Your task to perform on an android device: star an email in the gmail app Image 0: 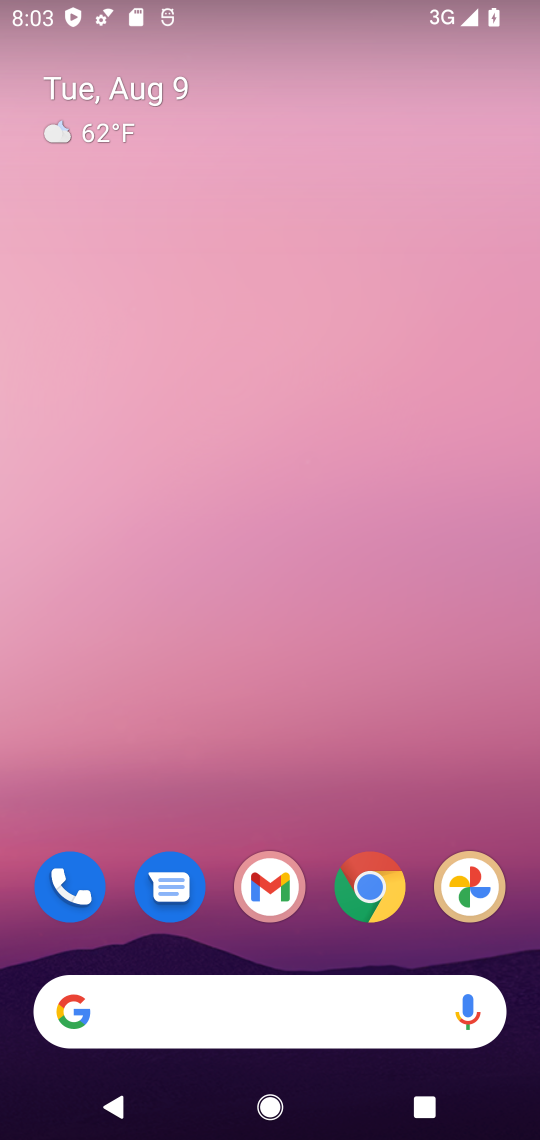
Step 0: click (274, 877)
Your task to perform on an android device: star an email in the gmail app Image 1: 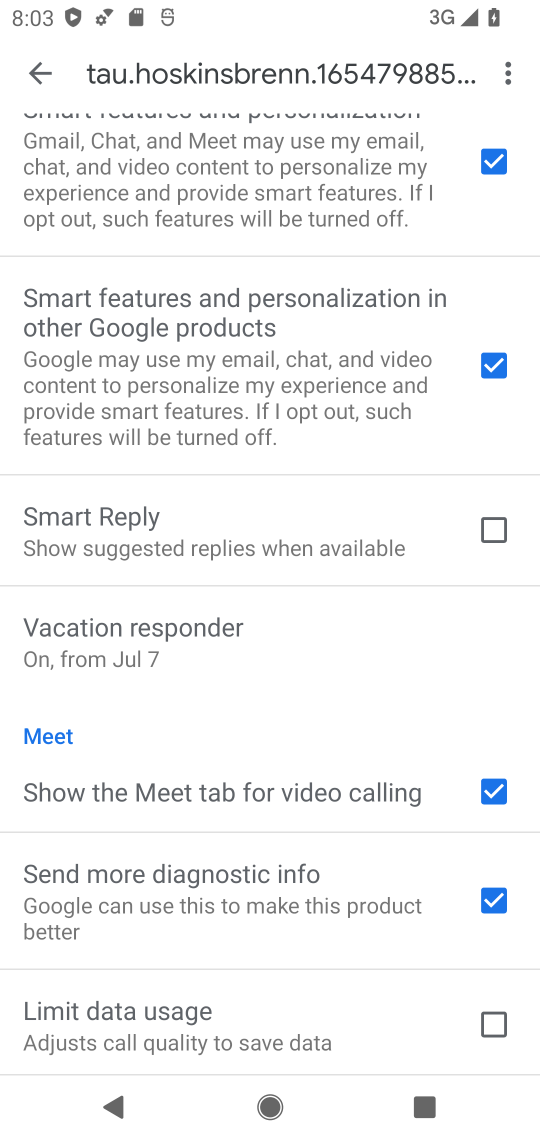
Step 1: click (43, 72)
Your task to perform on an android device: star an email in the gmail app Image 2: 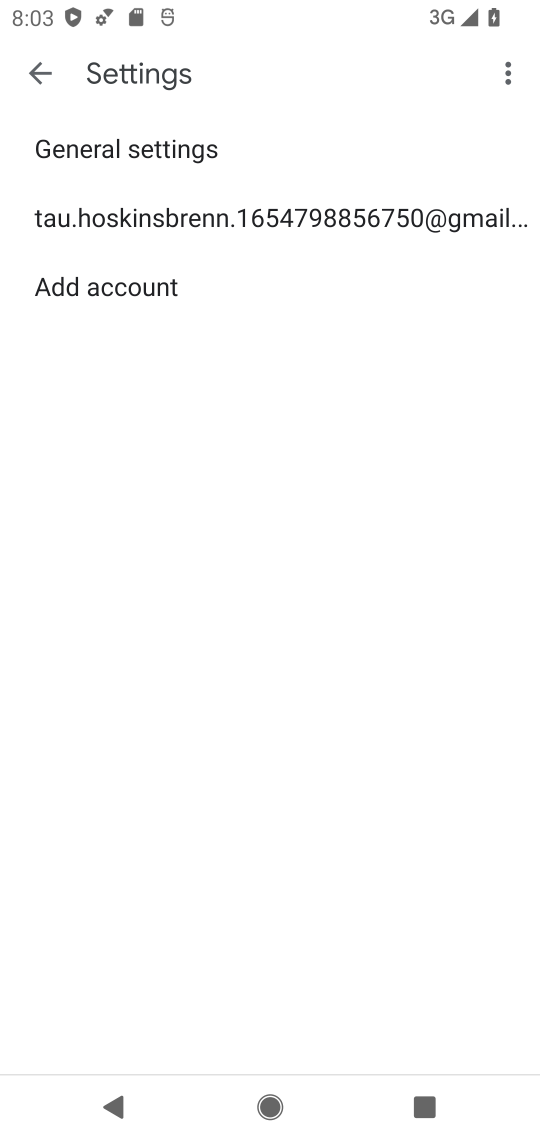
Step 2: click (42, 68)
Your task to perform on an android device: star an email in the gmail app Image 3: 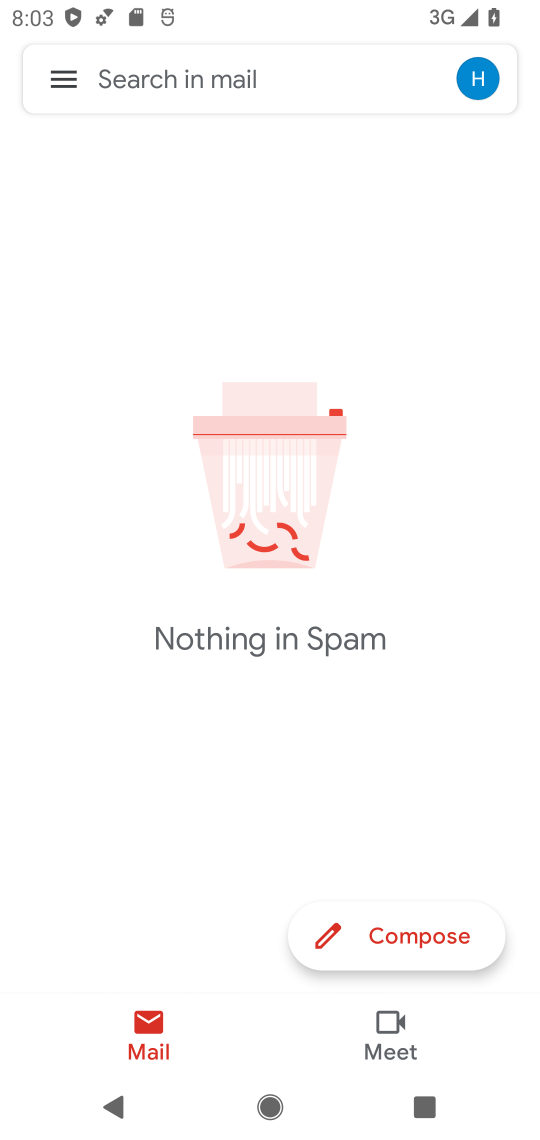
Step 3: click (68, 83)
Your task to perform on an android device: star an email in the gmail app Image 4: 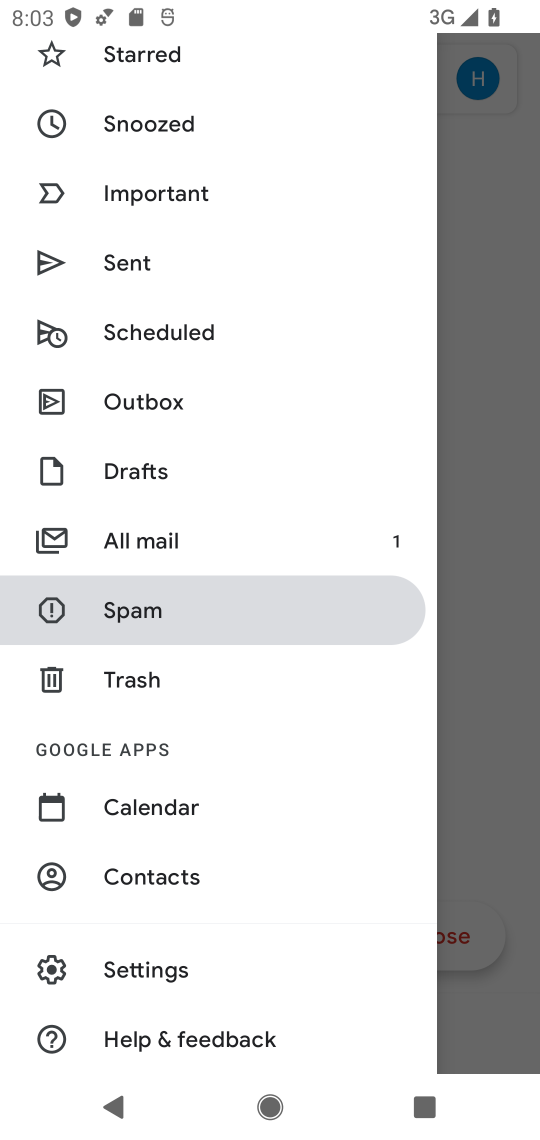
Step 4: click (170, 533)
Your task to perform on an android device: star an email in the gmail app Image 5: 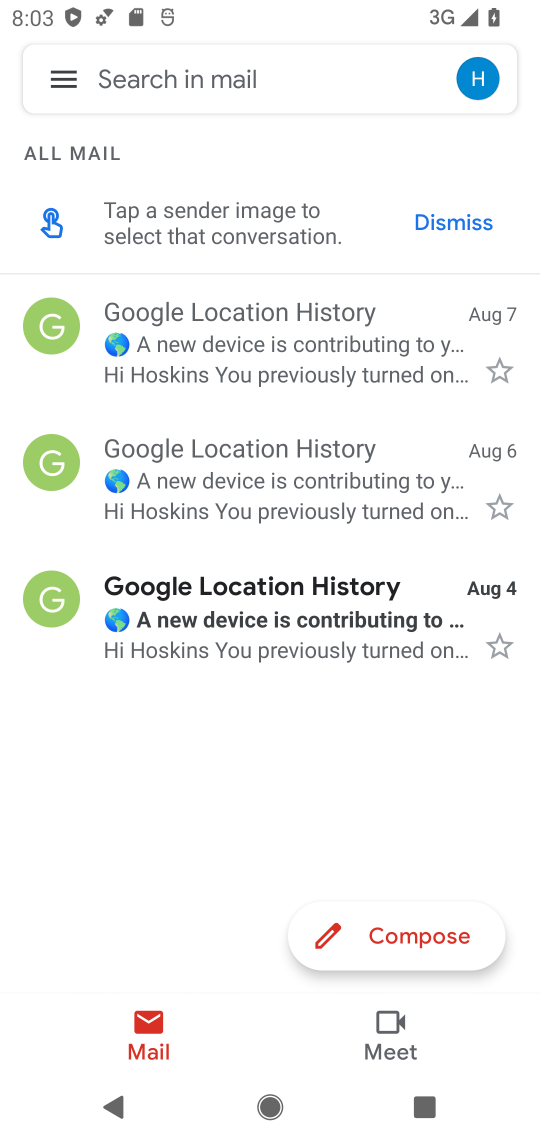
Step 5: click (495, 366)
Your task to perform on an android device: star an email in the gmail app Image 6: 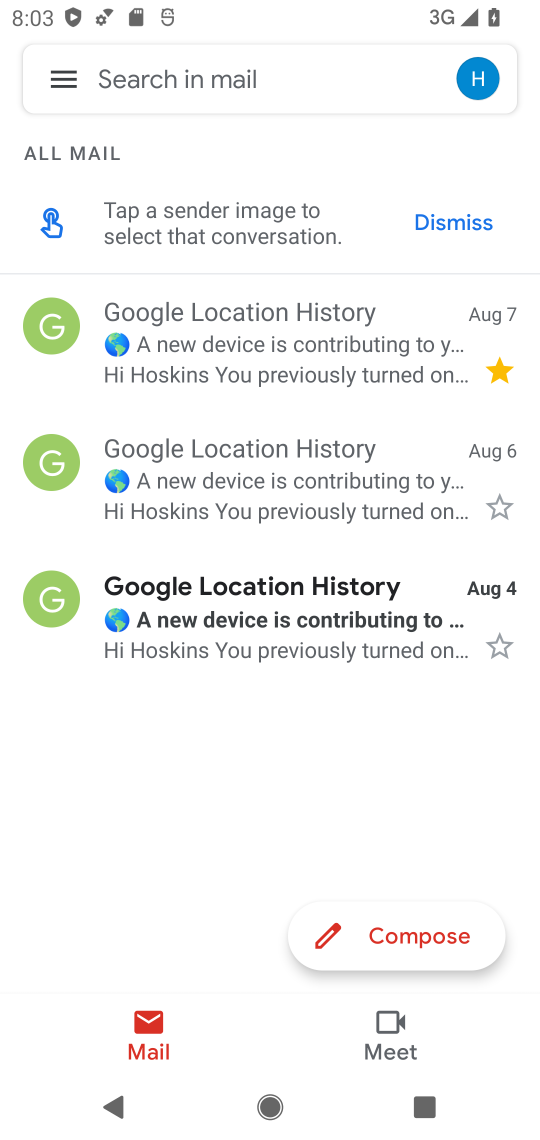
Step 6: task complete